Your task to perform on an android device: Open location settings Image 0: 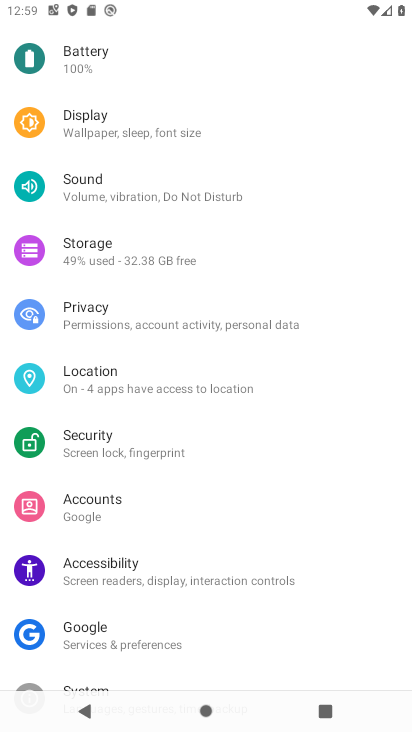
Step 0: press home button
Your task to perform on an android device: Open location settings Image 1: 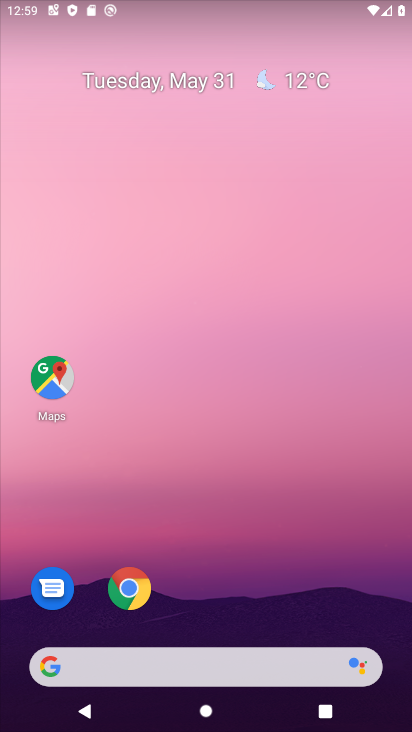
Step 1: drag from (193, 591) to (200, 72)
Your task to perform on an android device: Open location settings Image 2: 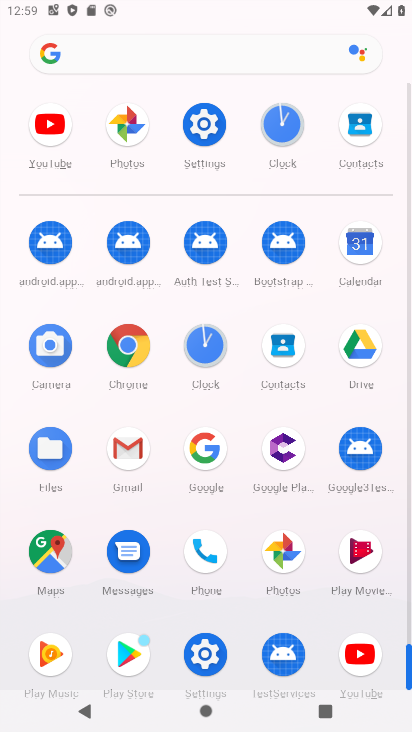
Step 2: click (192, 655)
Your task to perform on an android device: Open location settings Image 3: 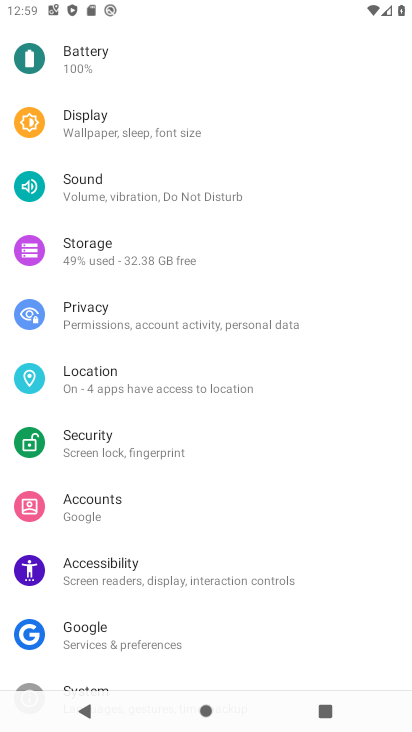
Step 3: click (88, 390)
Your task to perform on an android device: Open location settings Image 4: 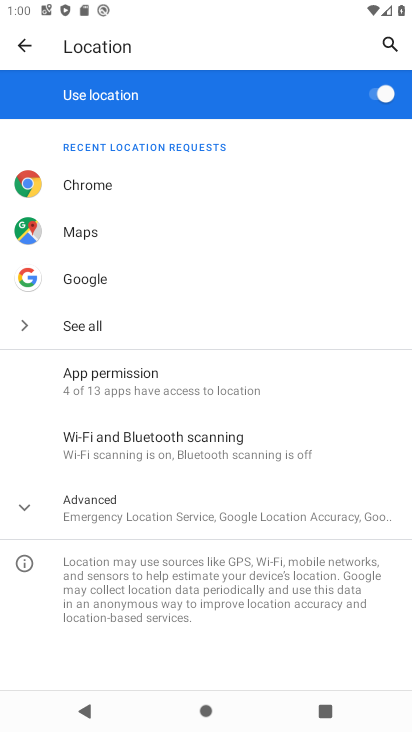
Step 4: task complete